Your task to perform on an android device: turn on bluetooth scan Image 0: 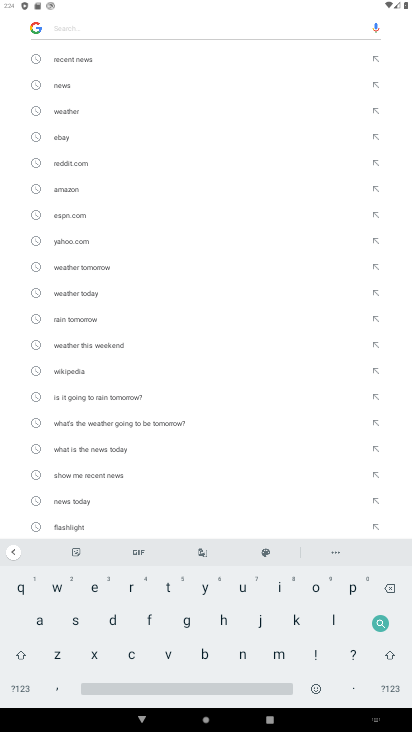
Step 0: press home button
Your task to perform on an android device: turn on bluetooth scan Image 1: 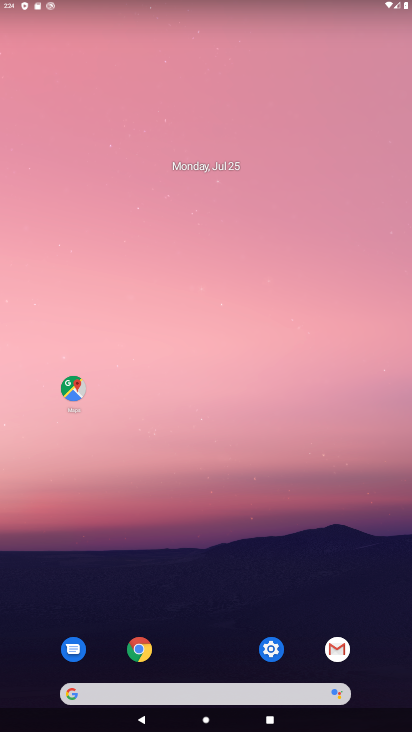
Step 1: click (277, 643)
Your task to perform on an android device: turn on bluetooth scan Image 2: 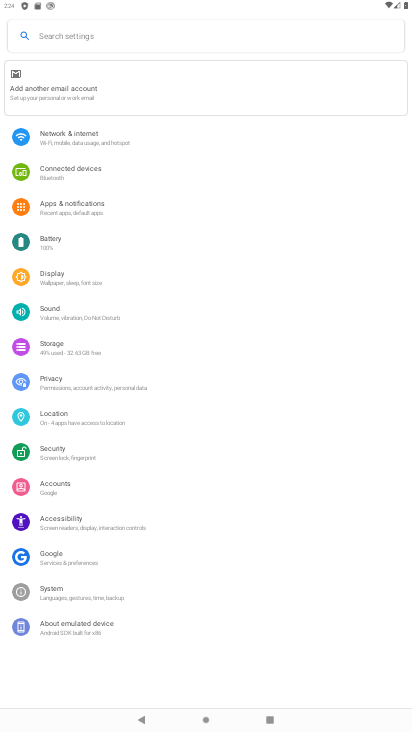
Step 2: click (91, 420)
Your task to perform on an android device: turn on bluetooth scan Image 3: 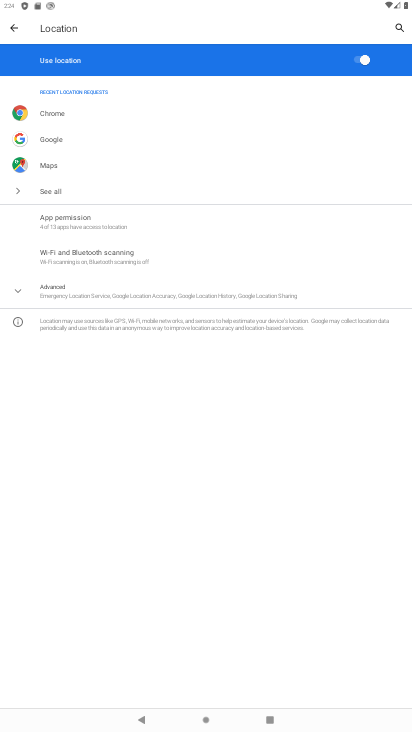
Step 3: click (96, 266)
Your task to perform on an android device: turn on bluetooth scan Image 4: 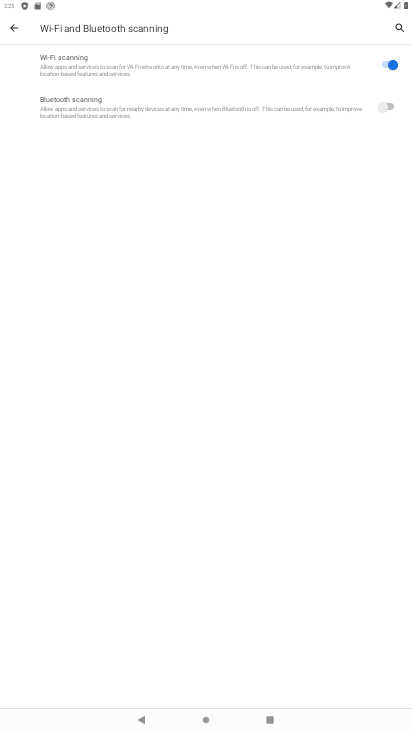
Step 4: click (339, 114)
Your task to perform on an android device: turn on bluetooth scan Image 5: 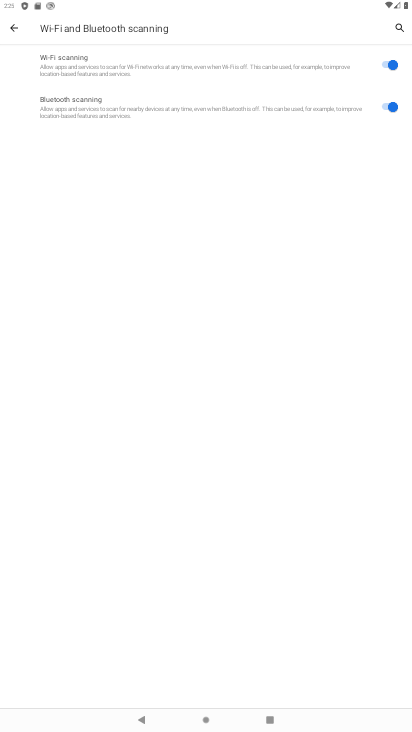
Step 5: task complete